Your task to perform on an android device: set an alarm Image 0: 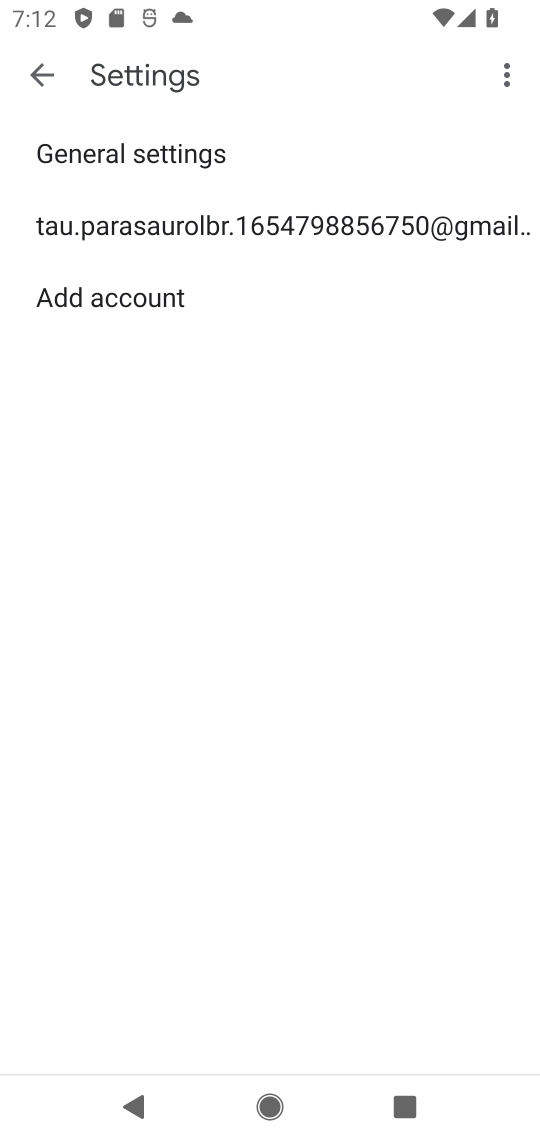
Step 0: press home button
Your task to perform on an android device: set an alarm Image 1: 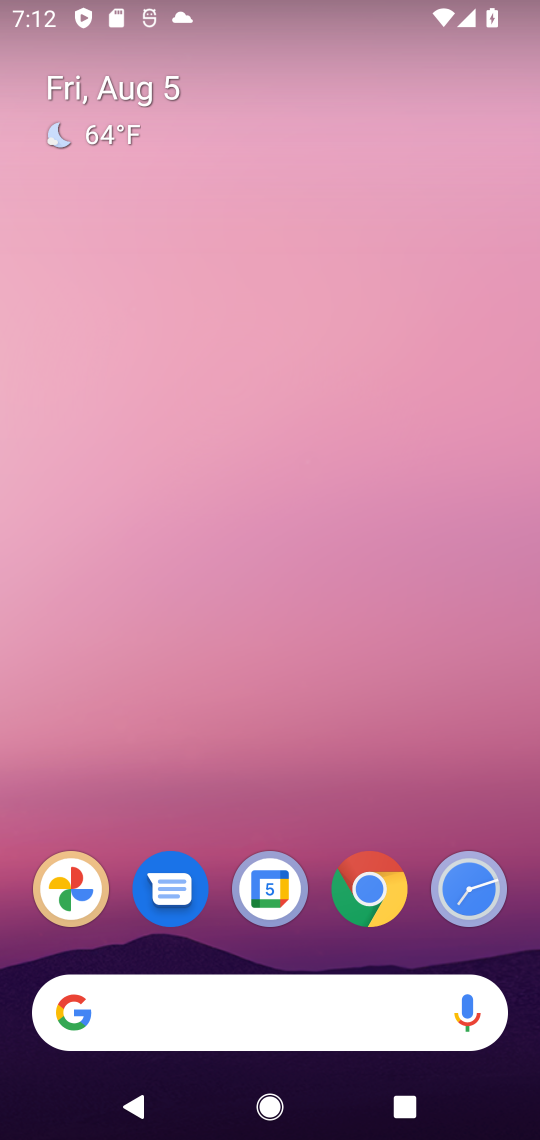
Step 1: click (436, 899)
Your task to perform on an android device: set an alarm Image 2: 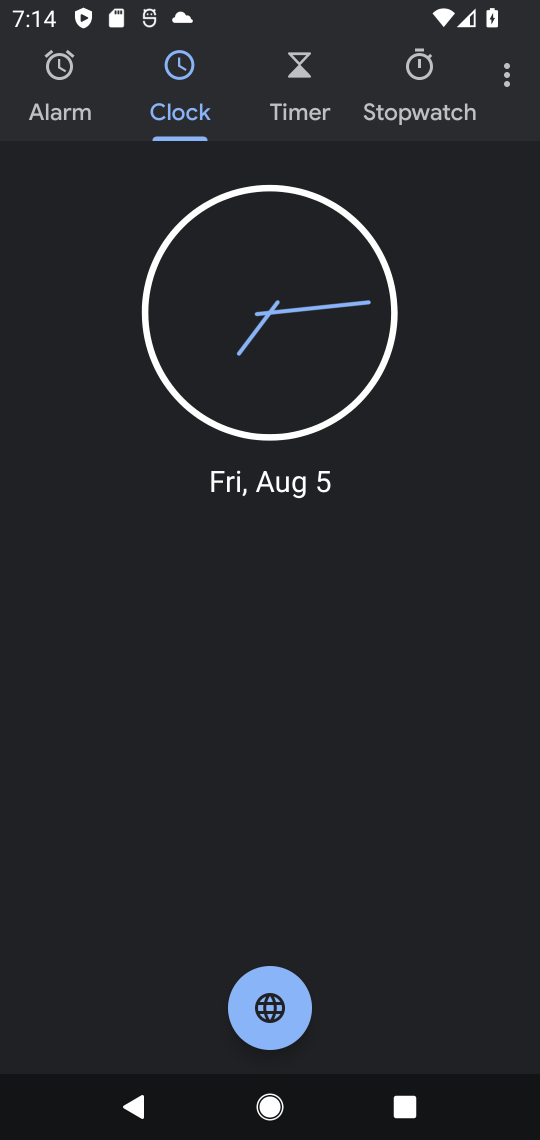
Step 2: click (64, 97)
Your task to perform on an android device: set an alarm Image 3: 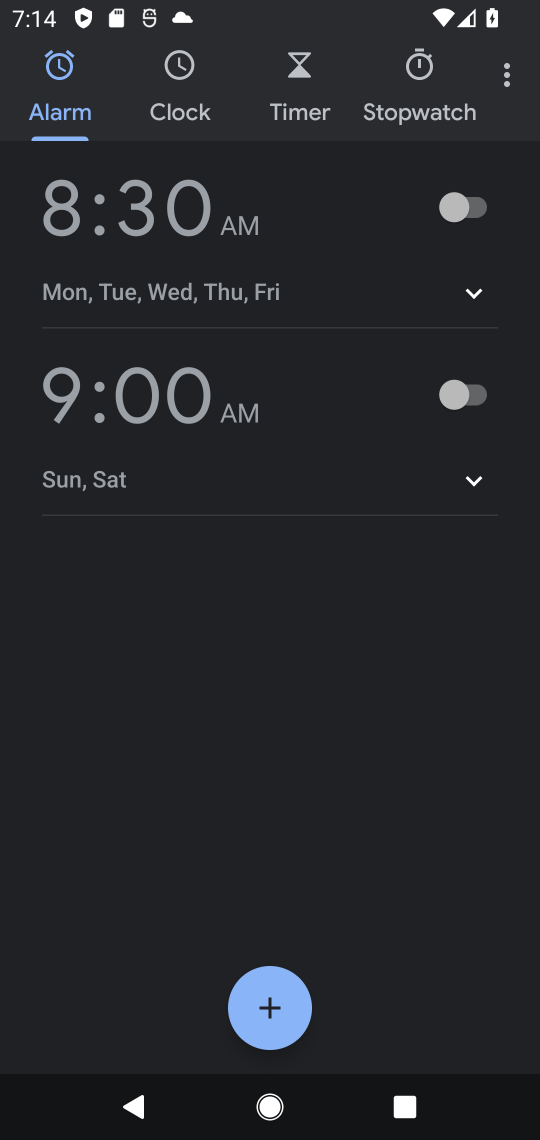
Step 3: click (271, 1012)
Your task to perform on an android device: set an alarm Image 4: 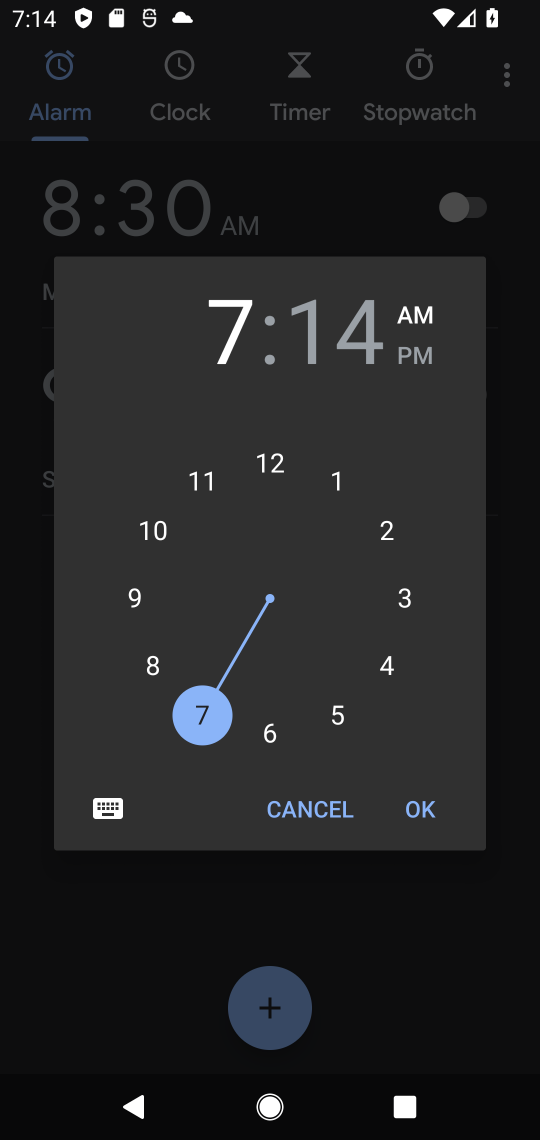
Step 4: click (277, 730)
Your task to perform on an android device: set an alarm Image 5: 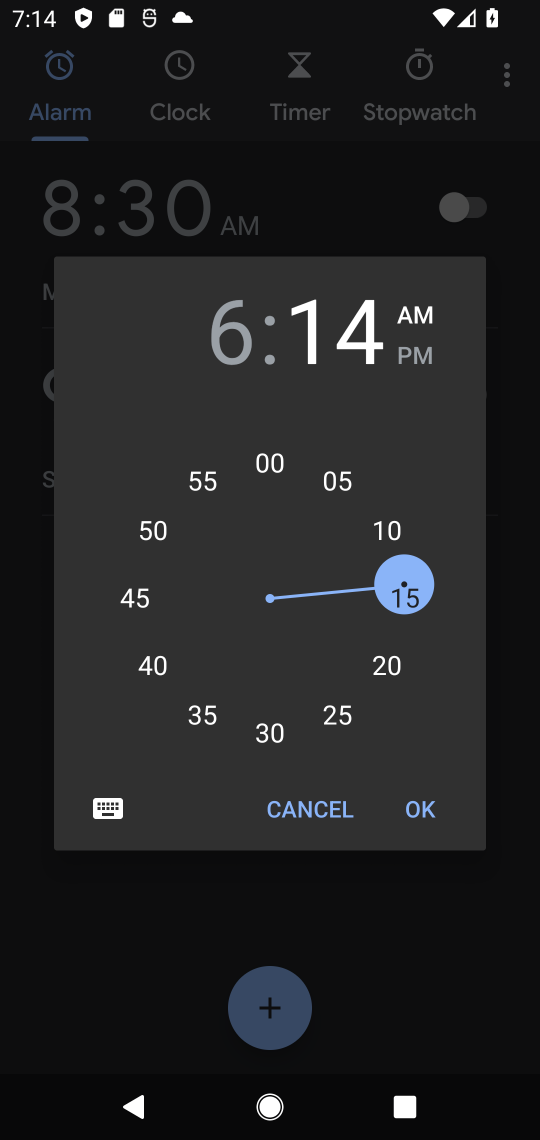
Step 5: click (266, 463)
Your task to perform on an android device: set an alarm Image 6: 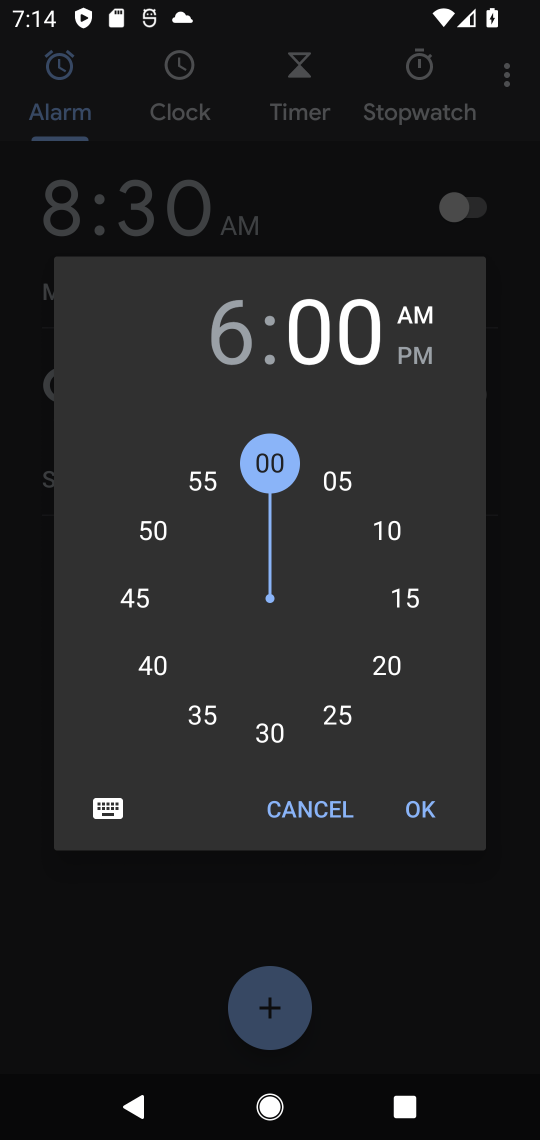
Step 6: click (424, 350)
Your task to perform on an android device: set an alarm Image 7: 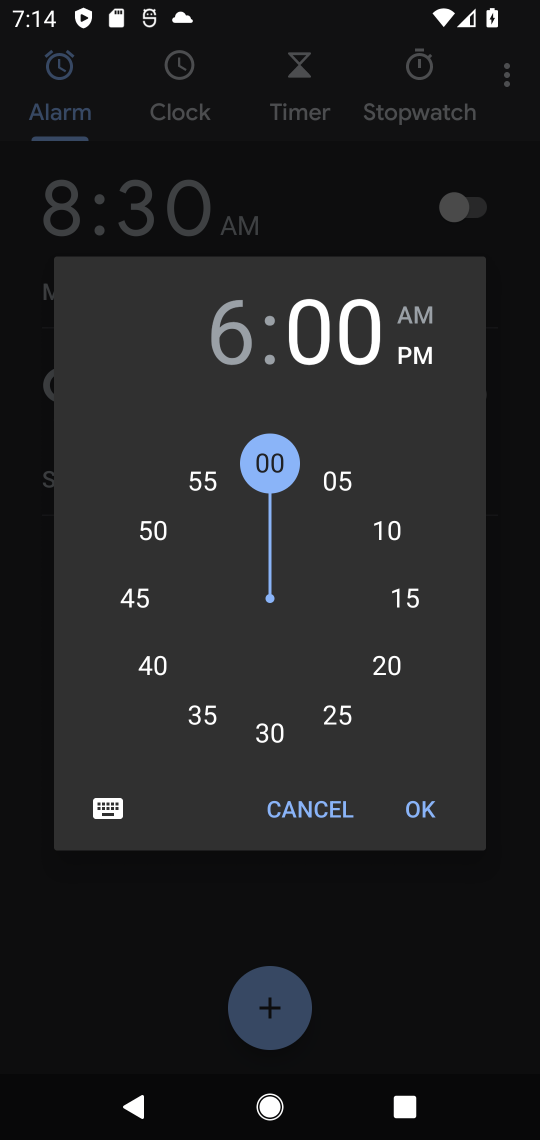
Step 7: task complete